Your task to perform on an android device: delete location history Image 0: 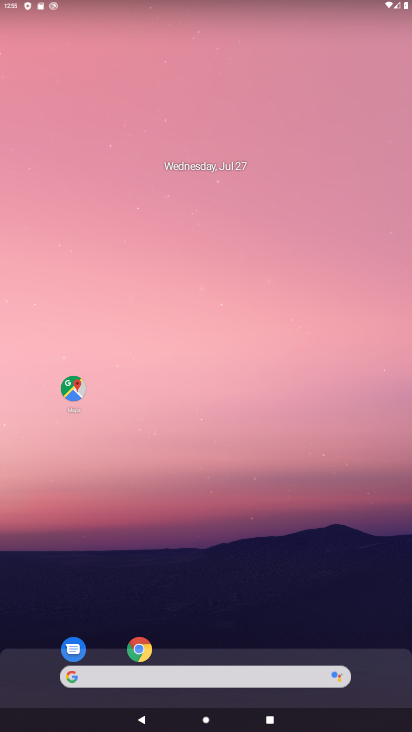
Step 0: click (69, 390)
Your task to perform on an android device: delete location history Image 1: 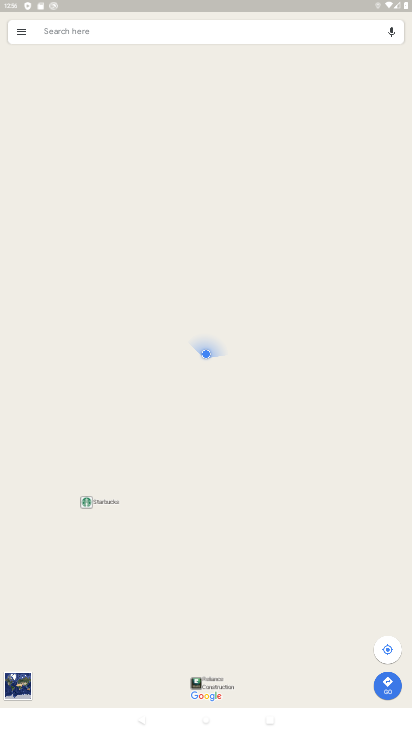
Step 1: click (22, 28)
Your task to perform on an android device: delete location history Image 2: 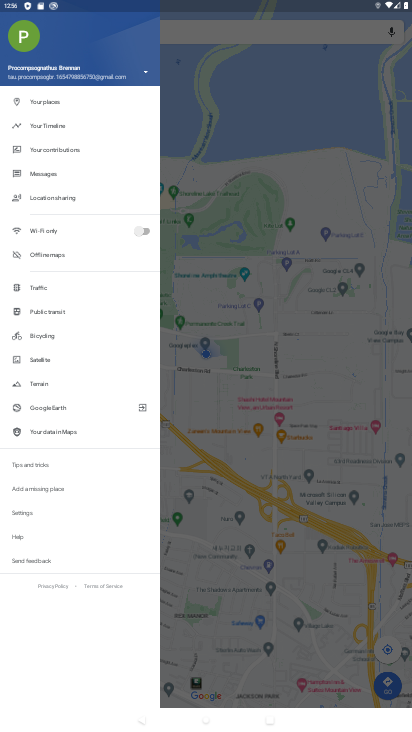
Step 2: click (45, 131)
Your task to perform on an android device: delete location history Image 3: 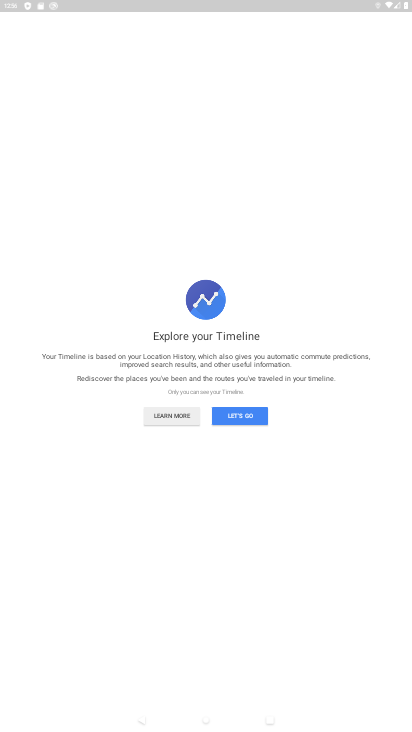
Step 3: click (234, 413)
Your task to perform on an android device: delete location history Image 4: 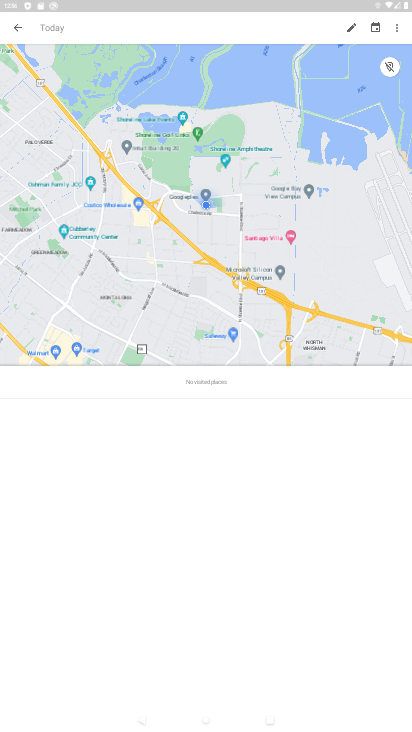
Step 4: click (397, 25)
Your task to perform on an android device: delete location history Image 5: 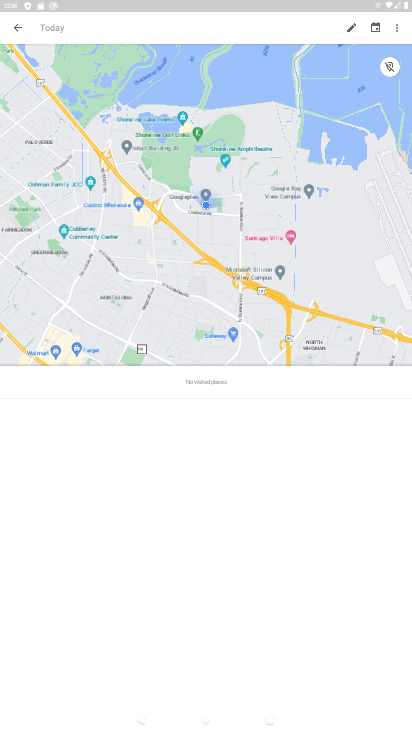
Step 5: click (398, 26)
Your task to perform on an android device: delete location history Image 6: 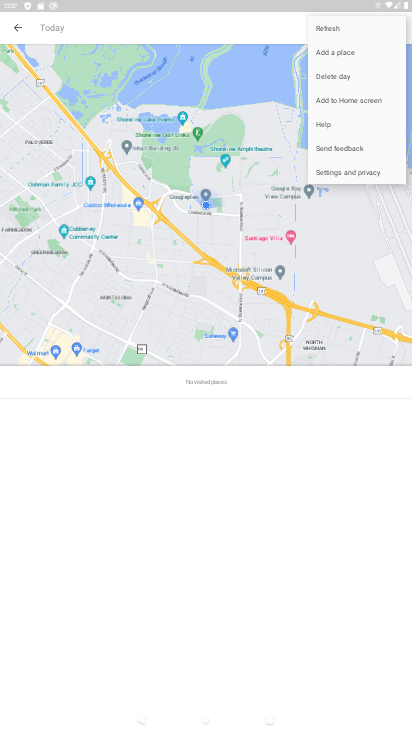
Step 6: click (332, 172)
Your task to perform on an android device: delete location history Image 7: 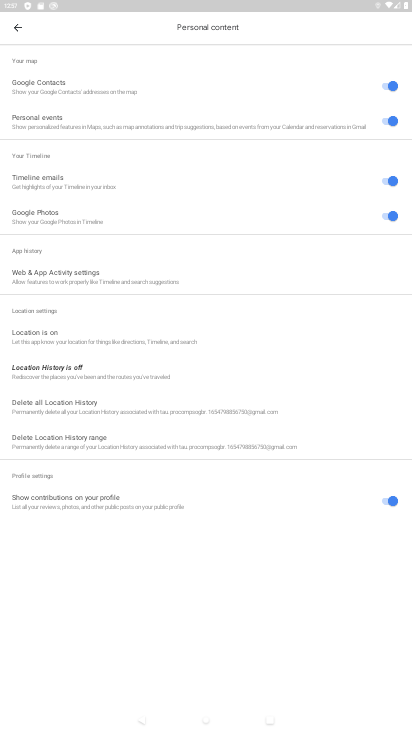
Step 7: click (75, 414)
Your task to perform on an android device: delete location history Image 8: 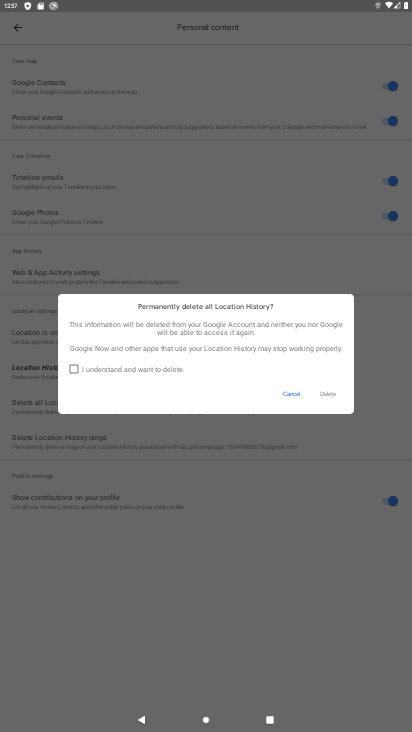
Step 8: click (72, 364)
Your task to perform on an android device: delete location history Image 9: 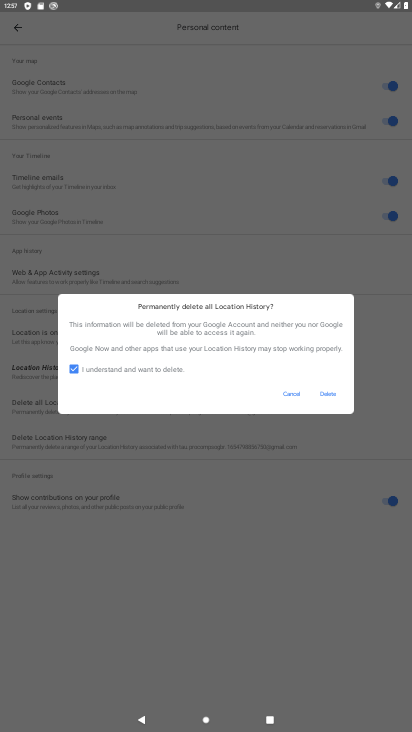
Step 9: click (323, 394)
Your task to perform on an android device: delete location history Image 10: 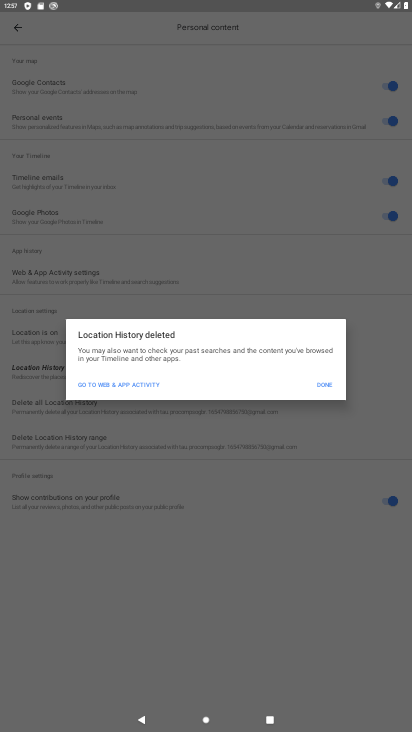
Step 10: click (324, 385)
Your task to perform on an android device: delete location history Image 11: 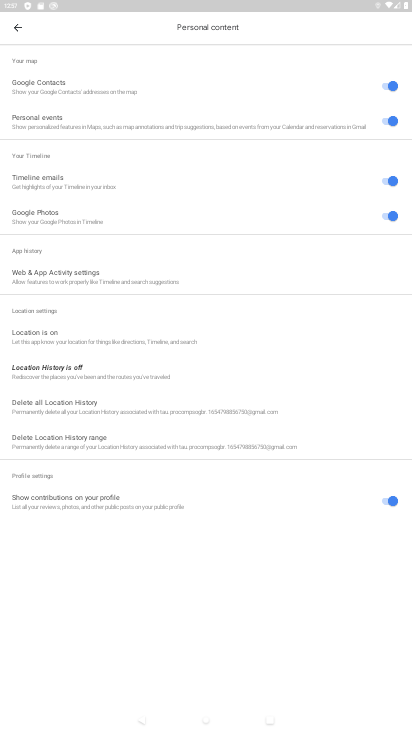
Step 11: task complete